Your task to perform on an android device: change the clock style Image 0: 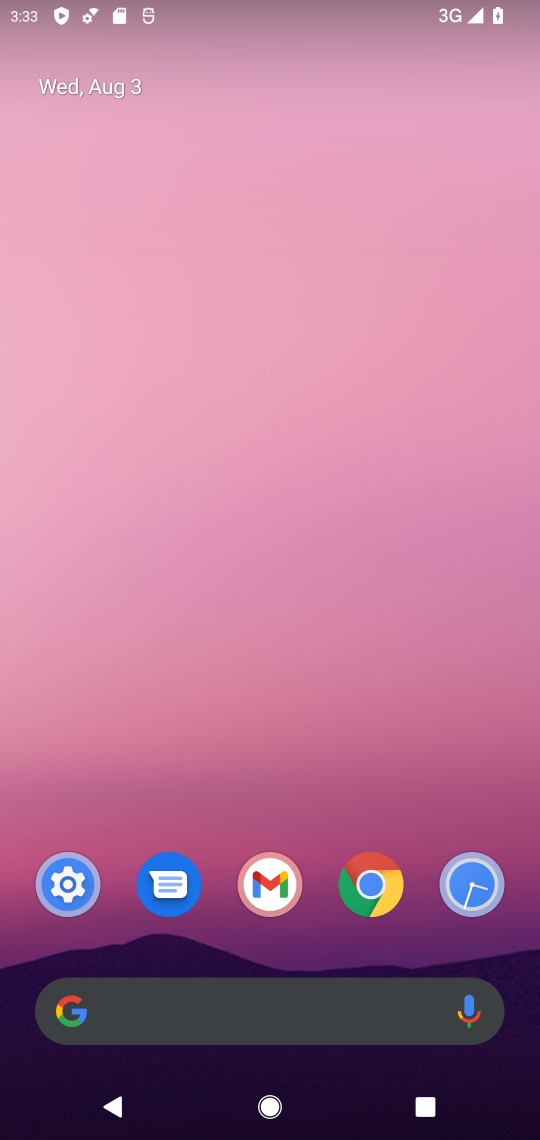
Step 0: click (456, 889)
Your task to perform on an android device: change the clock style Image 1: 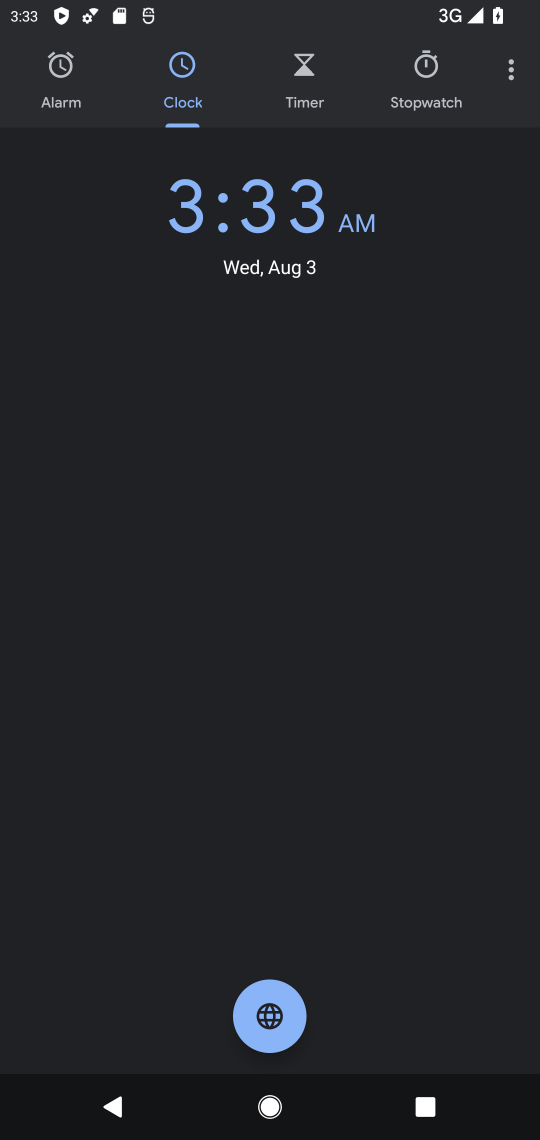
Step 1: click (507, 63)
Your task to perform on an android device: change the clock style Image 2: 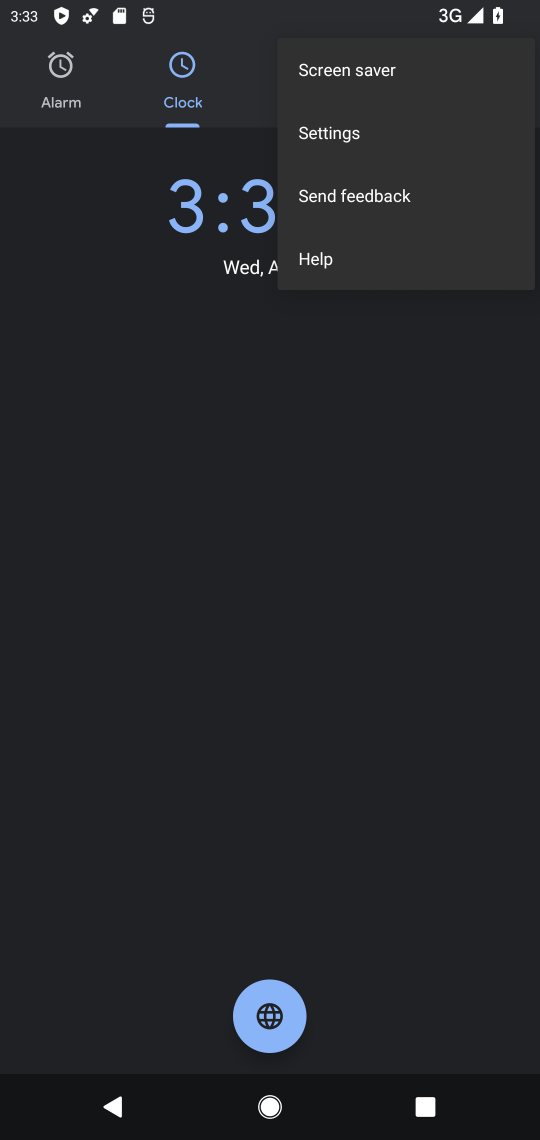
Step 2: click (371, 121)
Your task to perform on an android device: change the clock style Image 3: 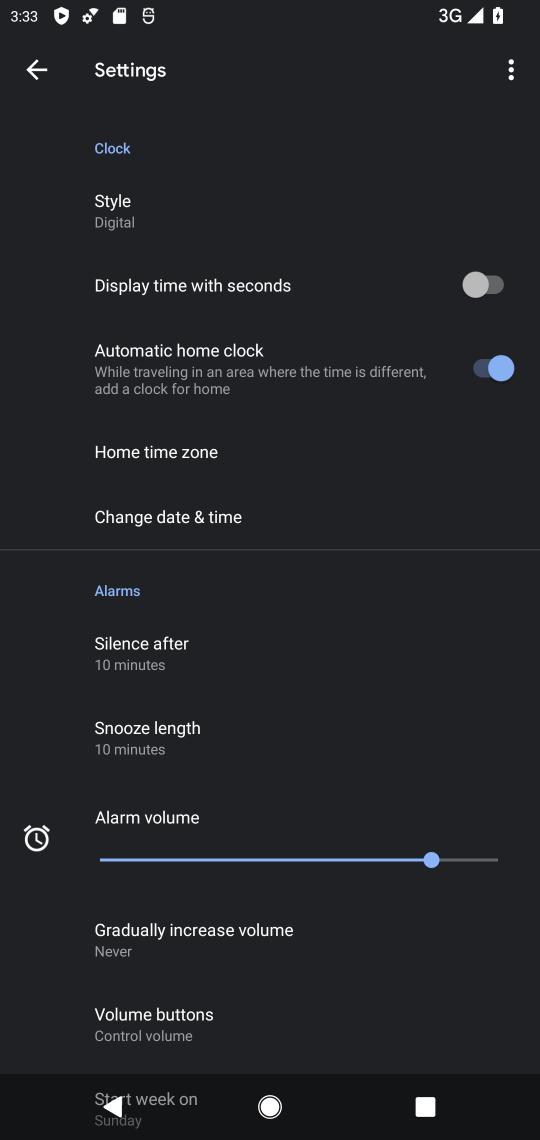
Step 3: click (157, 227)
Your task to perform on an android device: change the clock style Image 4: 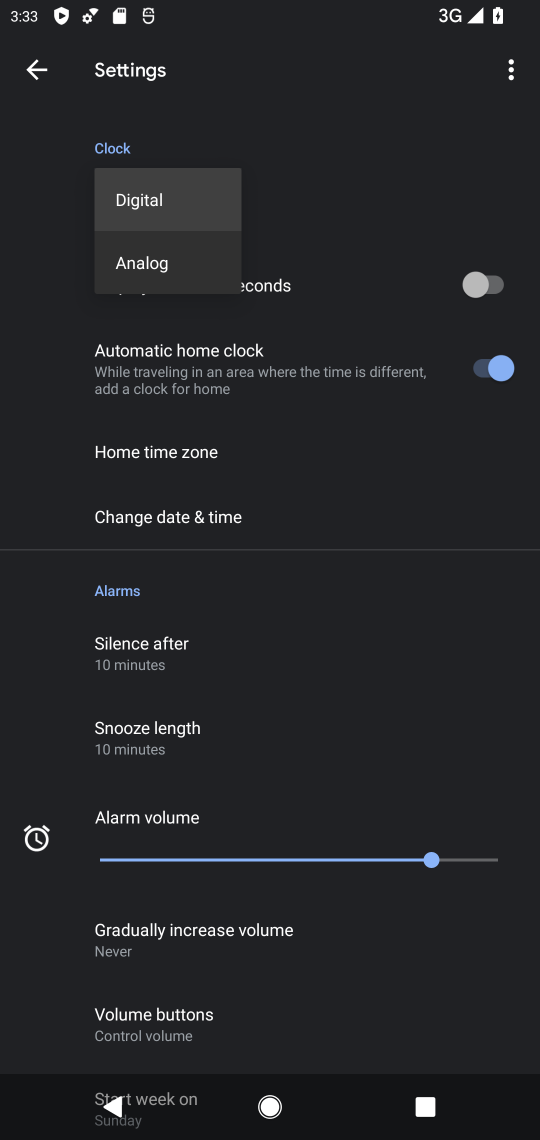
Step 4: click (133, 272)
Your task to perform on an android device: change the clock style Image 5: 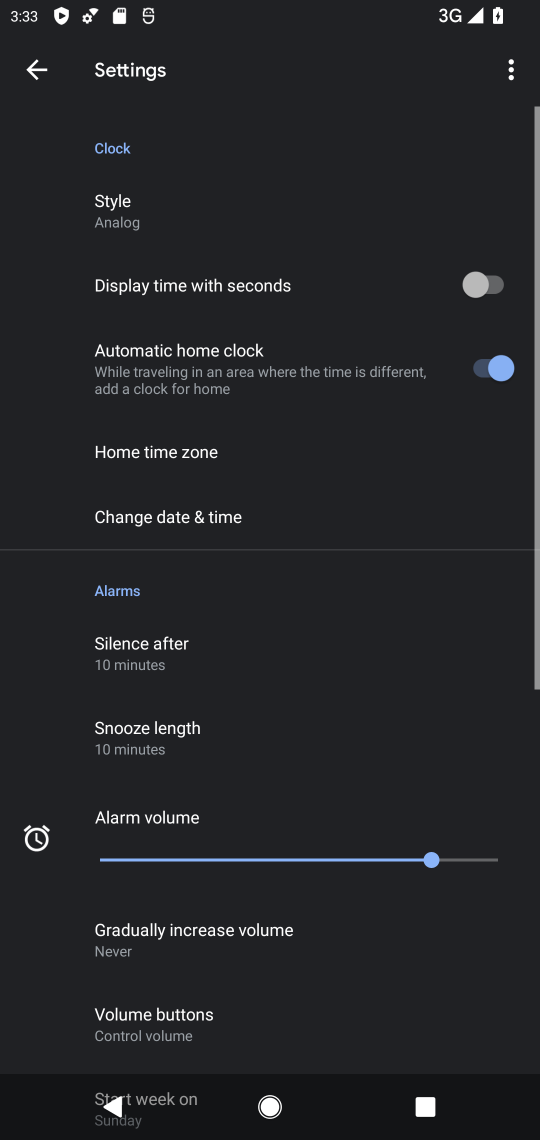
Step 5: task complete